Your task to perform on an android device: open chrome and create a bookmark for the current page Image 0: 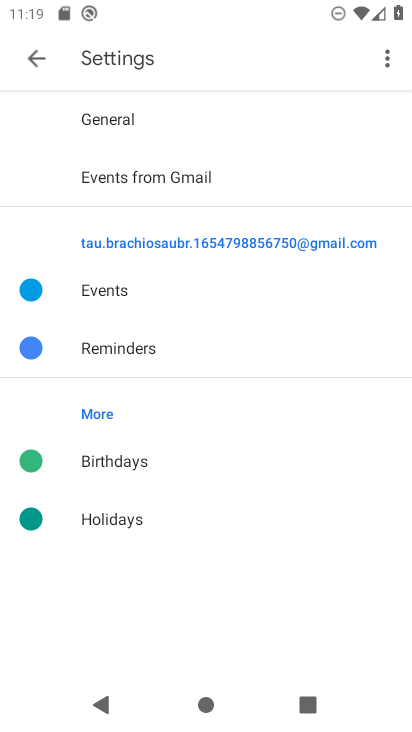
Step 0: press home button
Your task to perform on an android device: open chrome and create a bookmark for the current page Image 1: 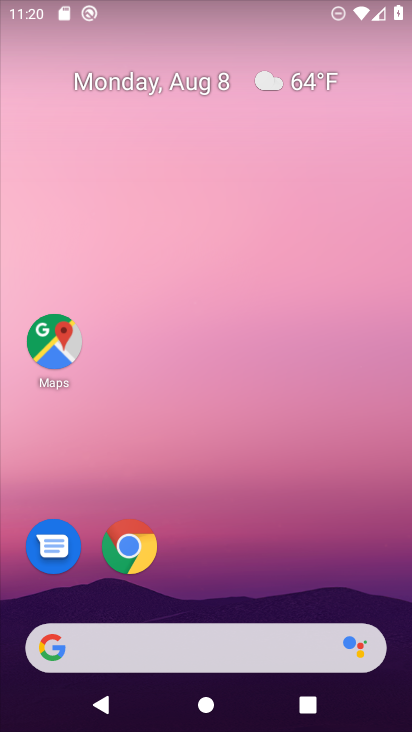
Step 1: click (132, 543)
Your task to perform on an android device: open chrome and create a bookmark for the current page Image 2: 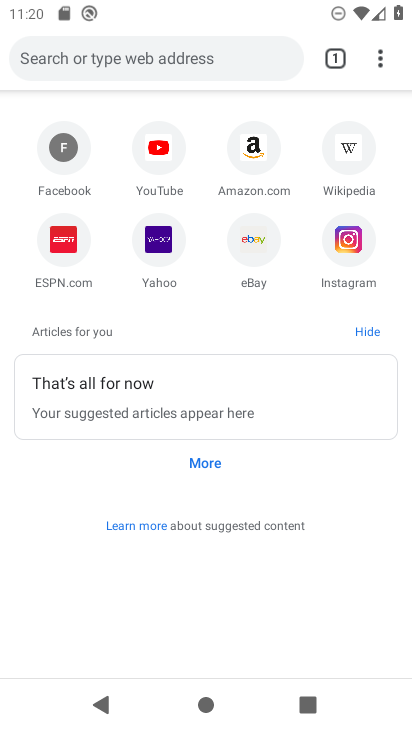
Step 2: click (377, 64)
Your task to perform on an android device: open chrome and create a bookmark for the current page Image 3: 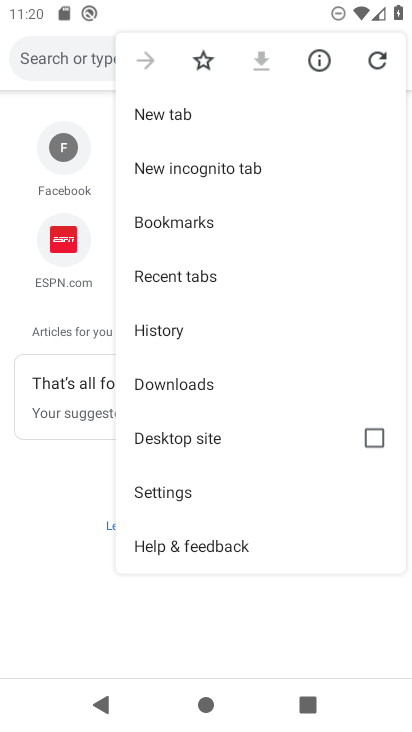
Step 3: click (199, 61)
Your task to perform on an android device: open chrome and create a bookmark for the current page Image 4: 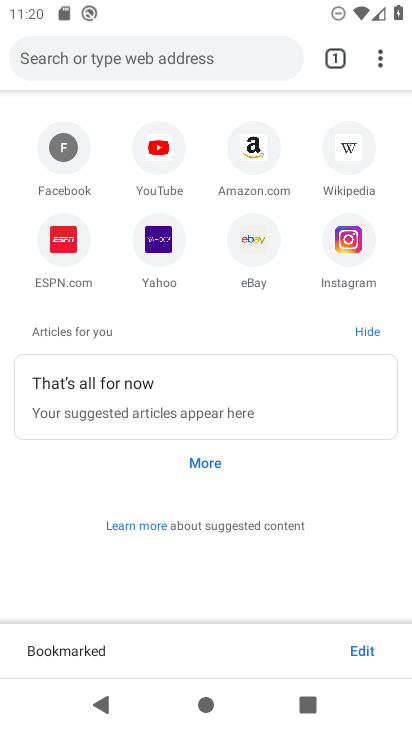
Step 4: task complete